Your task to perform on an android device: change alarm snooze length Image 0: 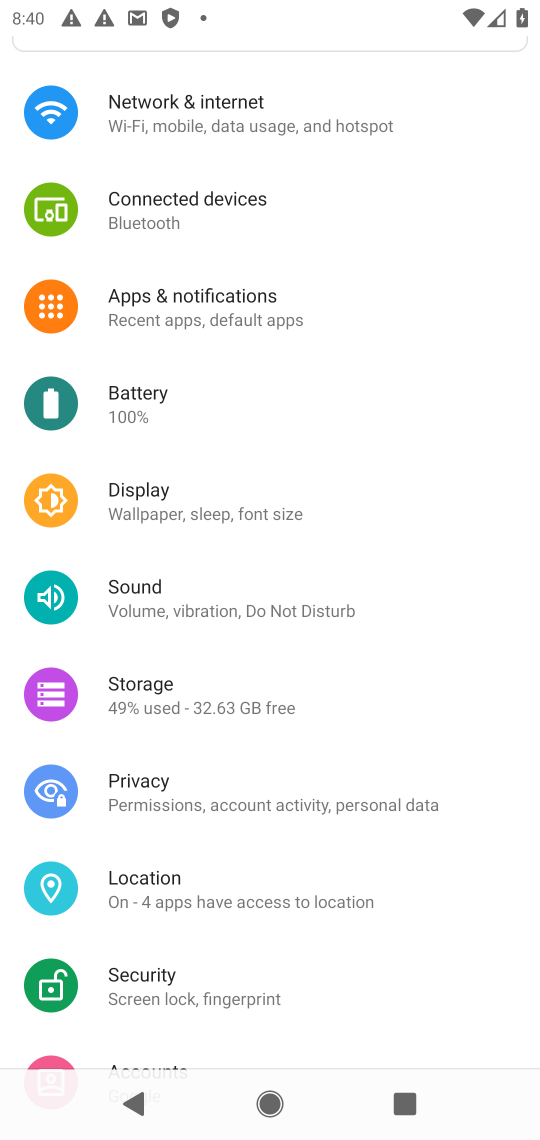
Step 0: press back button
Your task to perform on an android device: change alarm snooze length Image 1: 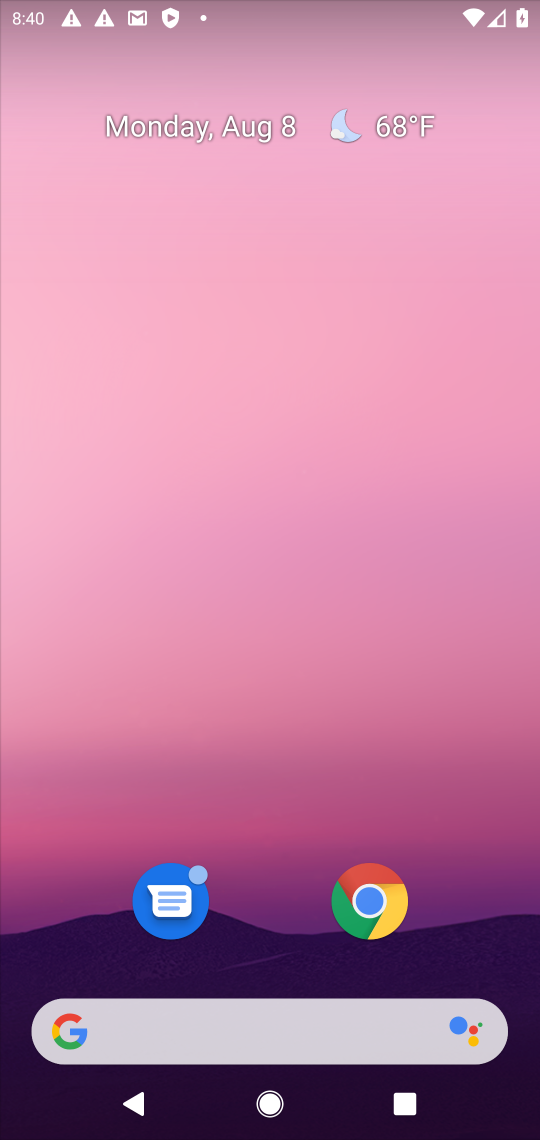
Step 1: drag from (251, 654) to (251, 324)
Your task to perform on an android device: change alarm snooze length Image 2: 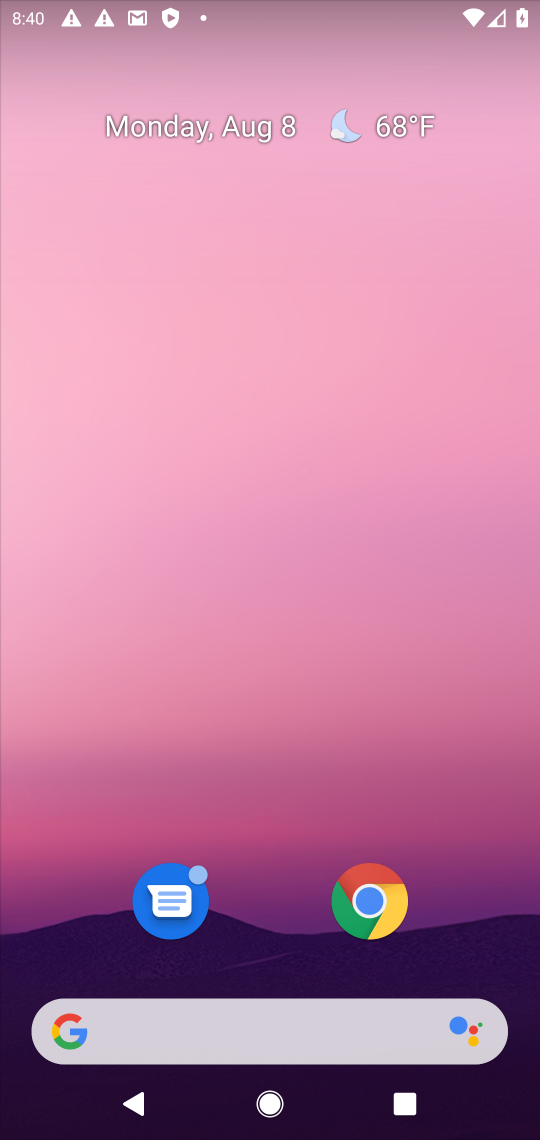
Step 2: click (221, 28)
Your task to perform on an android device: change alarm snooze length Image 3: 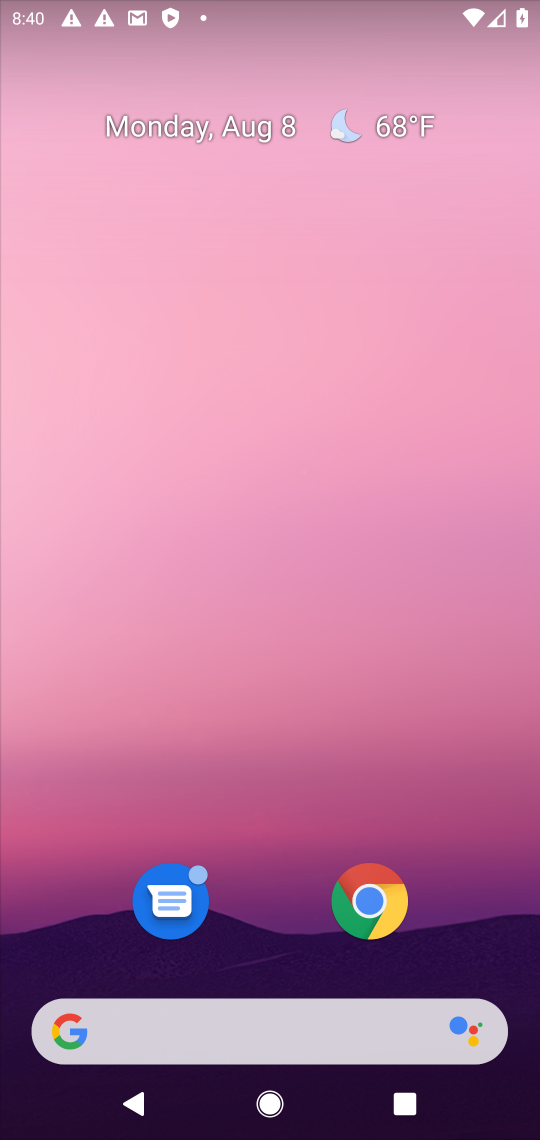
Step 3: click (281, 230)
Your task to perform on an android device: change alarm snooze length Image 4: 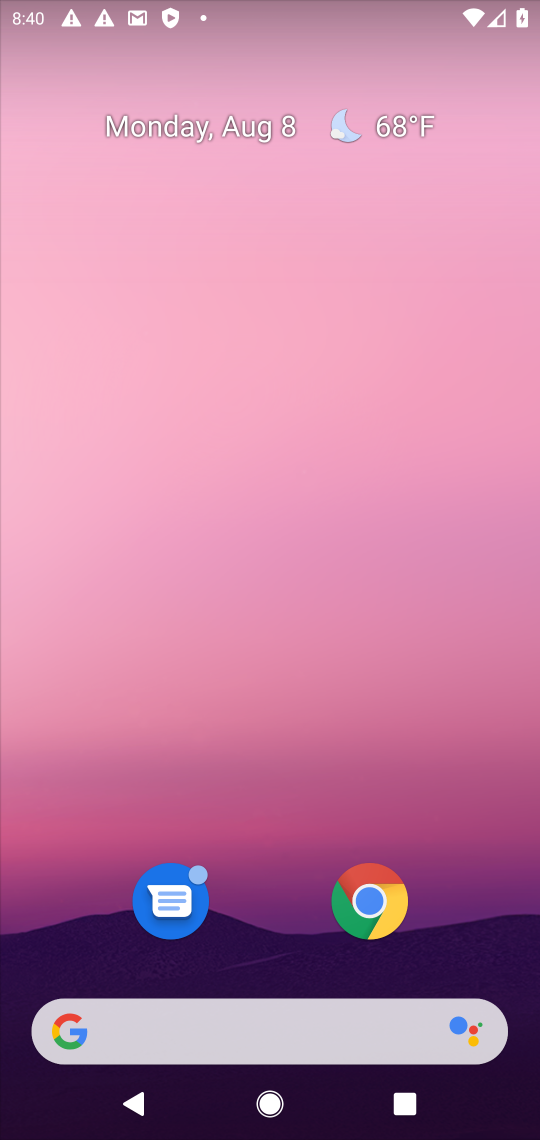
Step 4: drag from (238, 944) to (324, 346)
Your task to perform on an android device: change alarm snooze length Image 5: 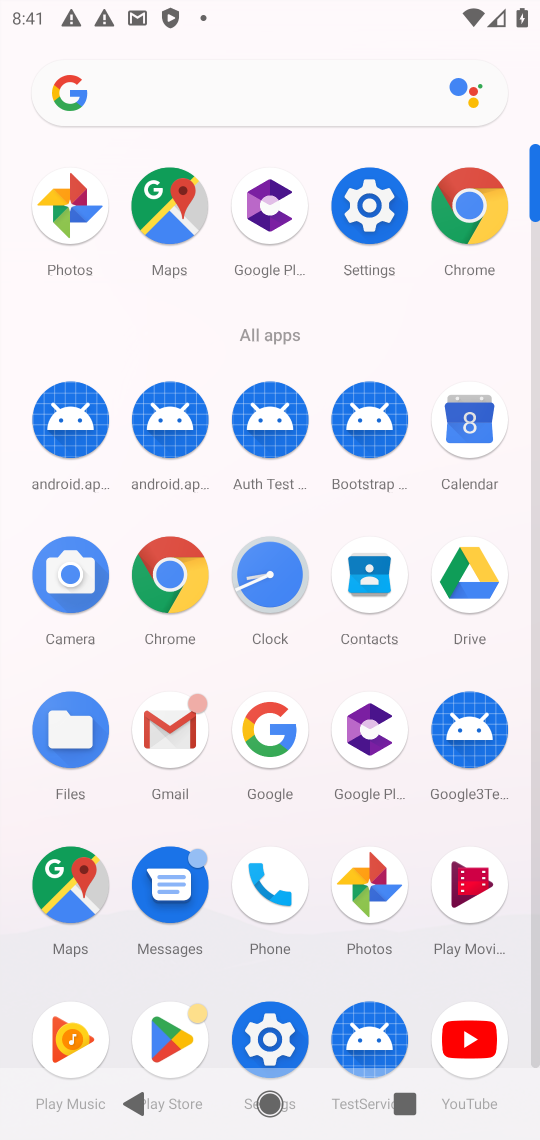
Step 5: click (258, 591)
Your task to perform on an android device: change alarm snooze length Image 6: 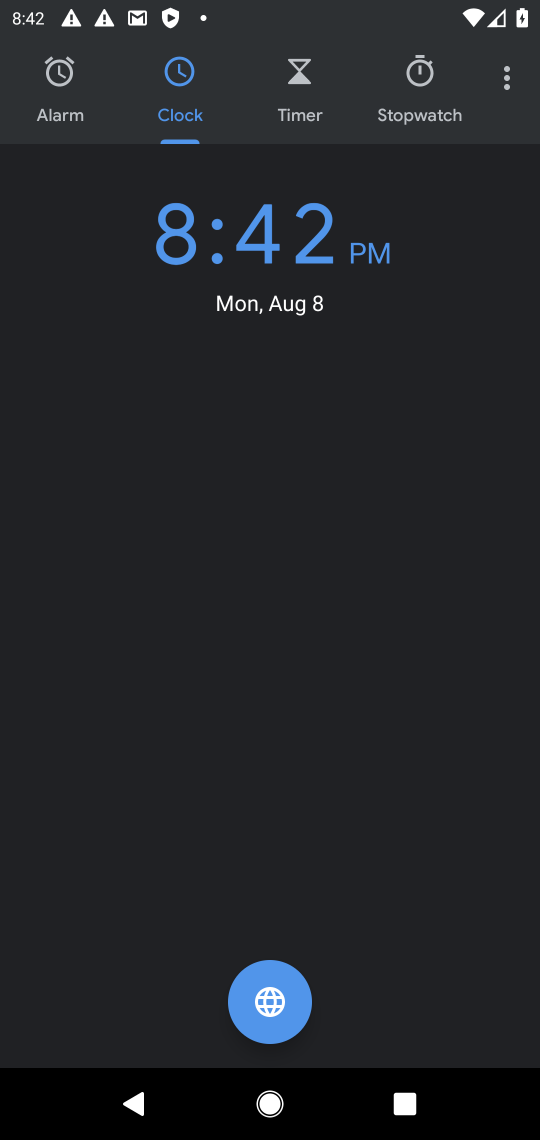
Step 6: click (505, 85)
Your task to perform on an android device: change alarm snooze length Image 7: 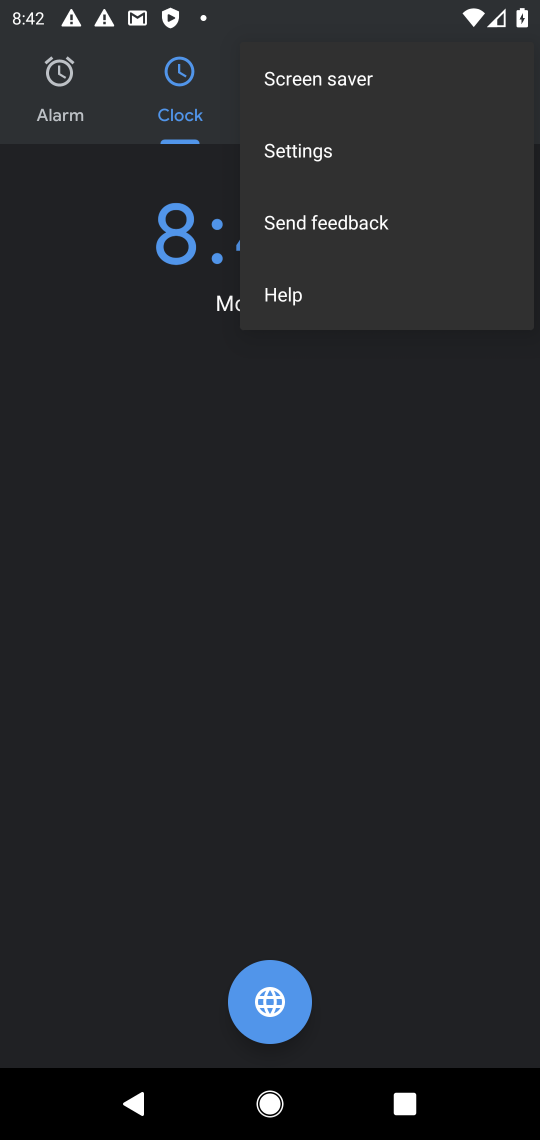
Step 7: click (325, 149)
Your task to perform on an android device: change alarm snooze length Image 8: 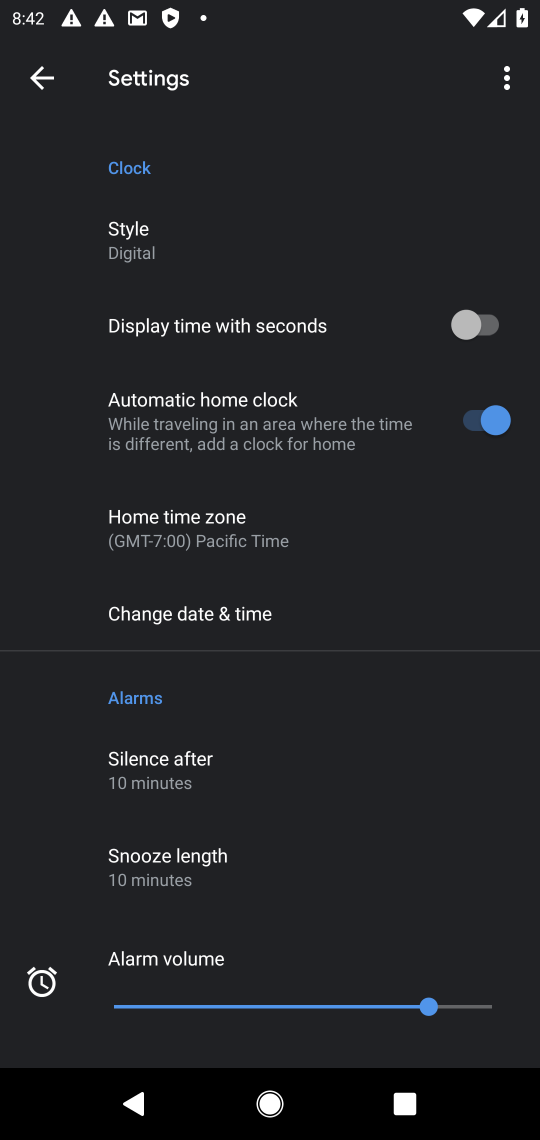
Step 8: click (124, 861)
Your task to perform on an android device: change alarm snooze length Image 9: 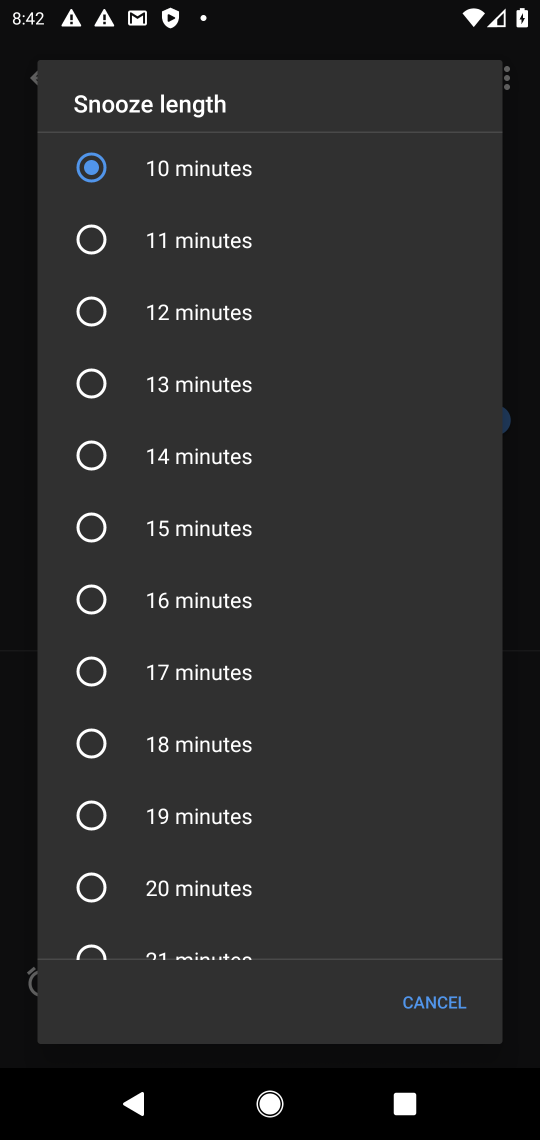
Step 9: click (90, 253)
Your task to perform on an android device: change alarm snooze length Image 10: 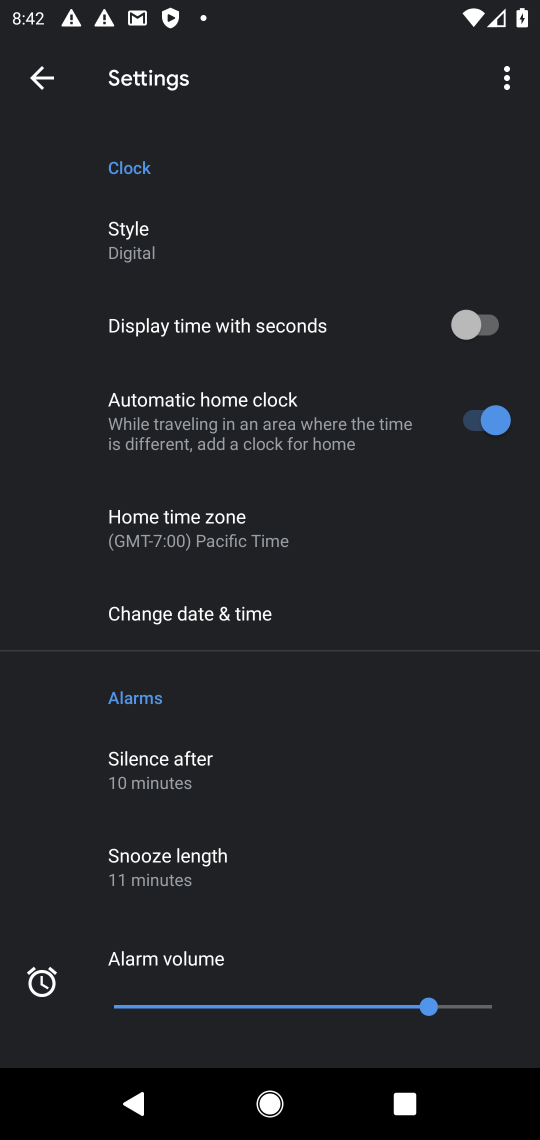
Step 10: task complete